Your task to perform on an android device: Search for Mexican restaurants on Maps Image 0: 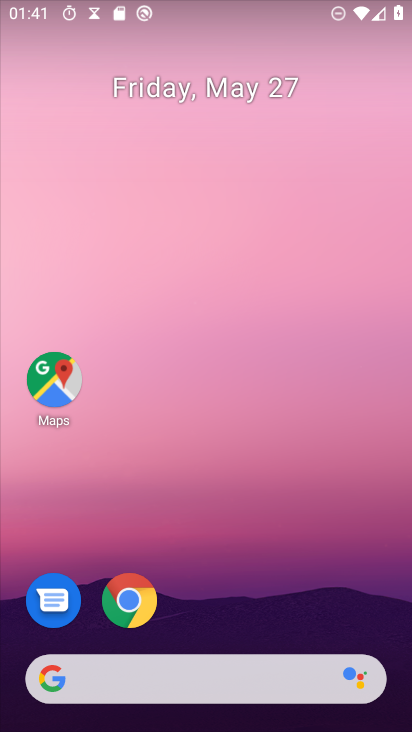
Step 0: click (45, 385)
Your task to perform on an android device: Search for Mexican restaurants on Maps Image 1: 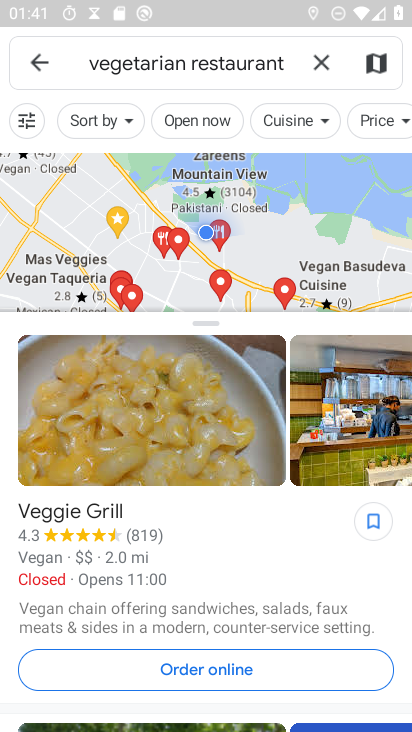
Step 1: click (323, 64)
Your task to perform on an android device: Search for Mexican restaurants on Maps Image 2: 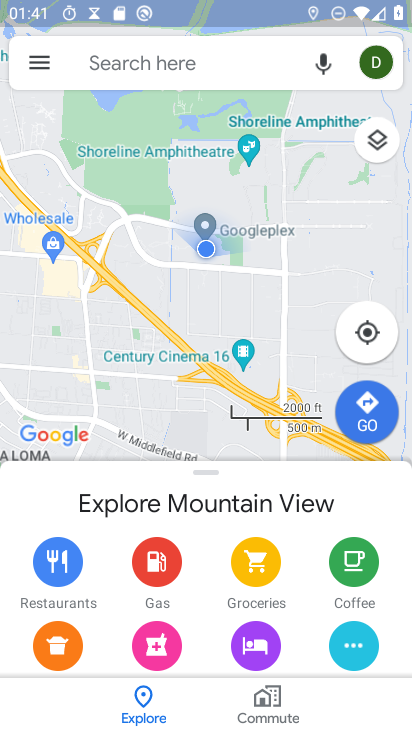
Step 2: click (236, 56)
Your task to perform on an android device: Search for Mexican restaurants on Maps Image 3: 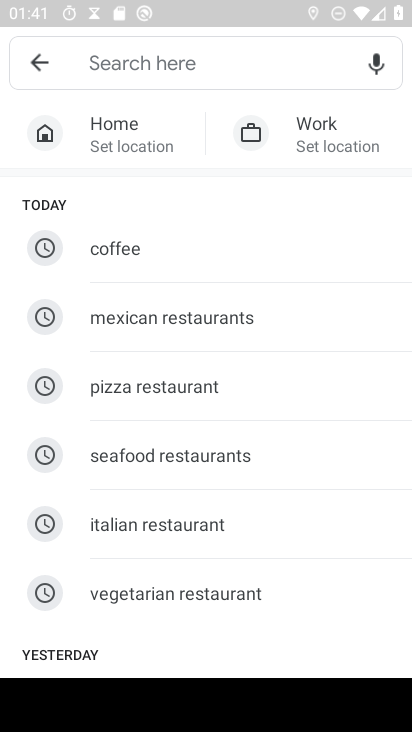
Step 3: click (257, 317)
Your task to perform on an android device: Search for Mexican restaurants on Maps Image 4: 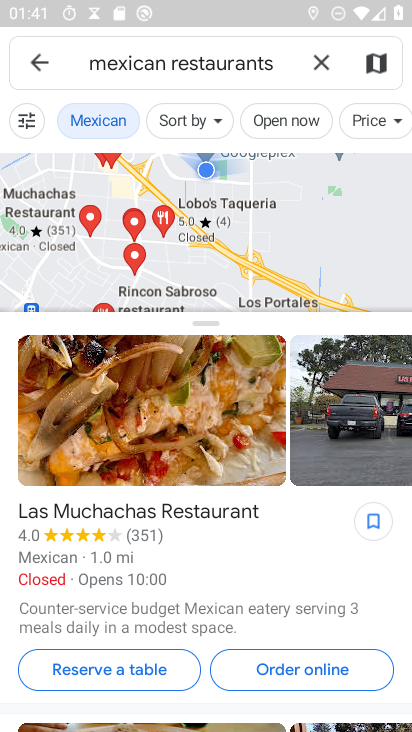
Step 4: task complete